Your task to perform on an android device: What time is it in London? Image 0: 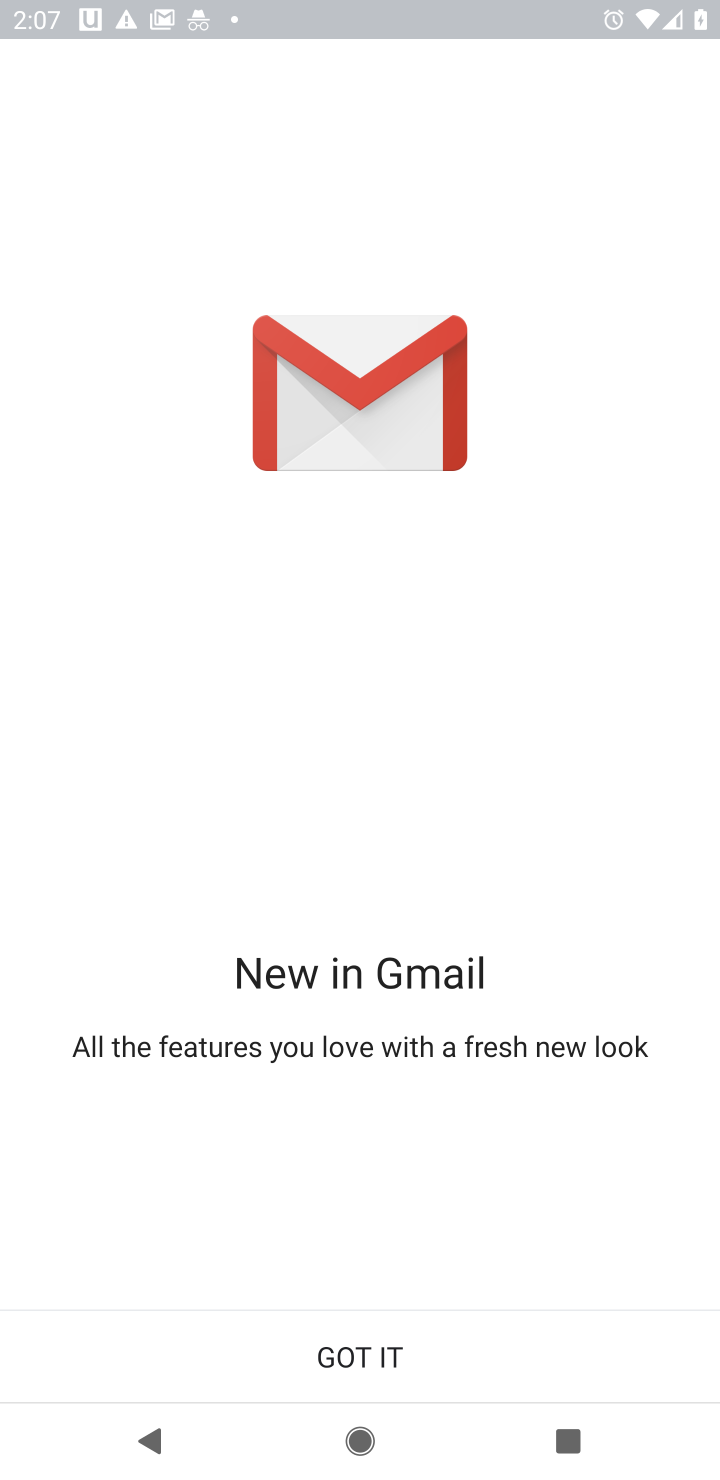
Step 0: press home button
Your task to perform on an android device: What time is it in London? Image 1: 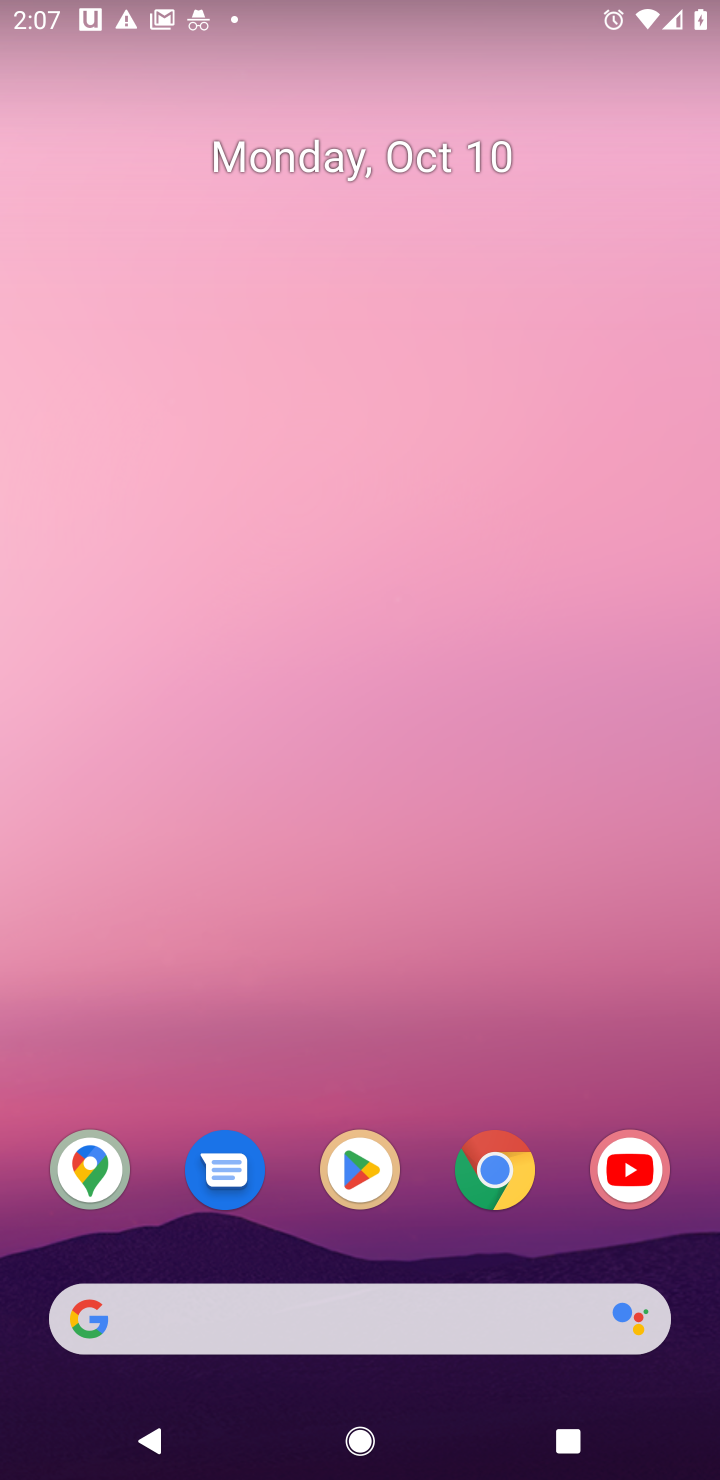
Step 1: click (507, 1167)
Your task to perform on an android device: What time is it in London? Image 2: 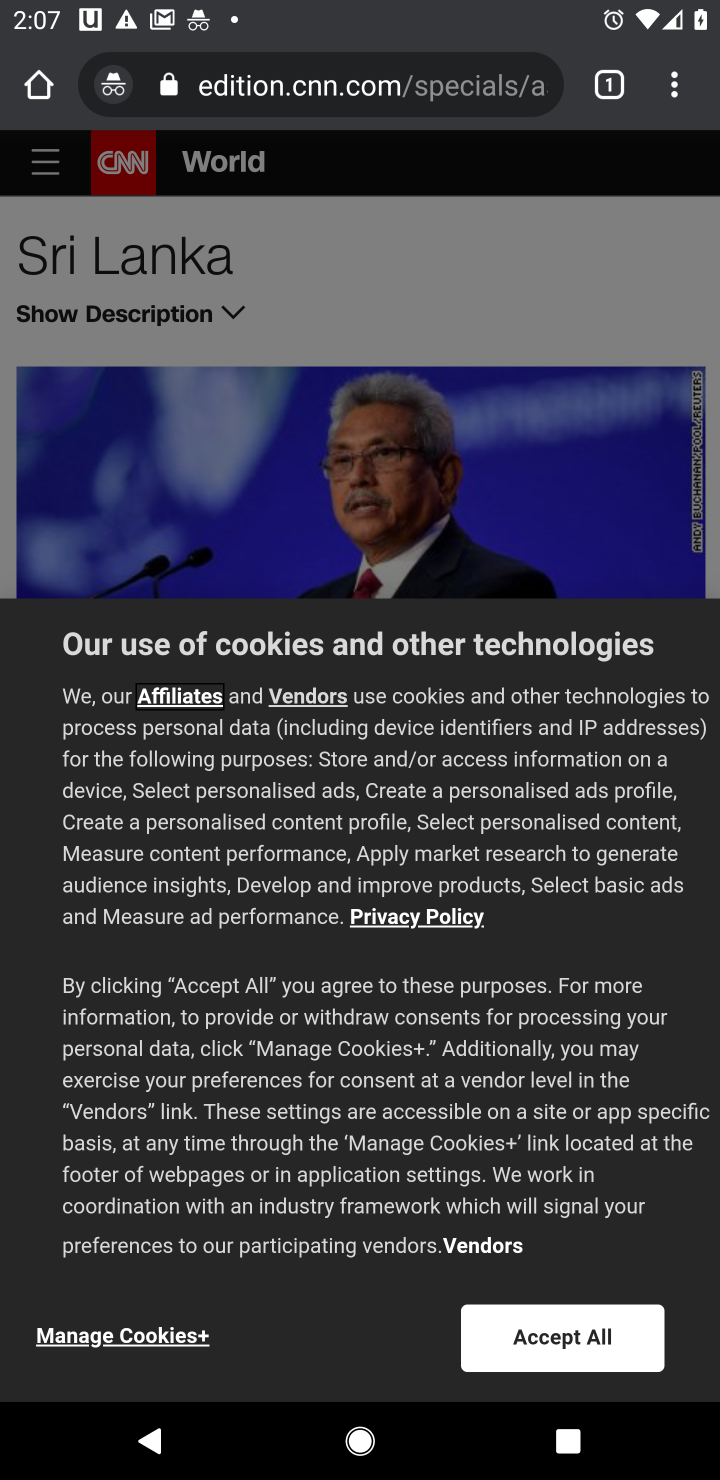
Step 2: click (290, 84)
Your task to perform on an android device: What time is it in London? Image 3: 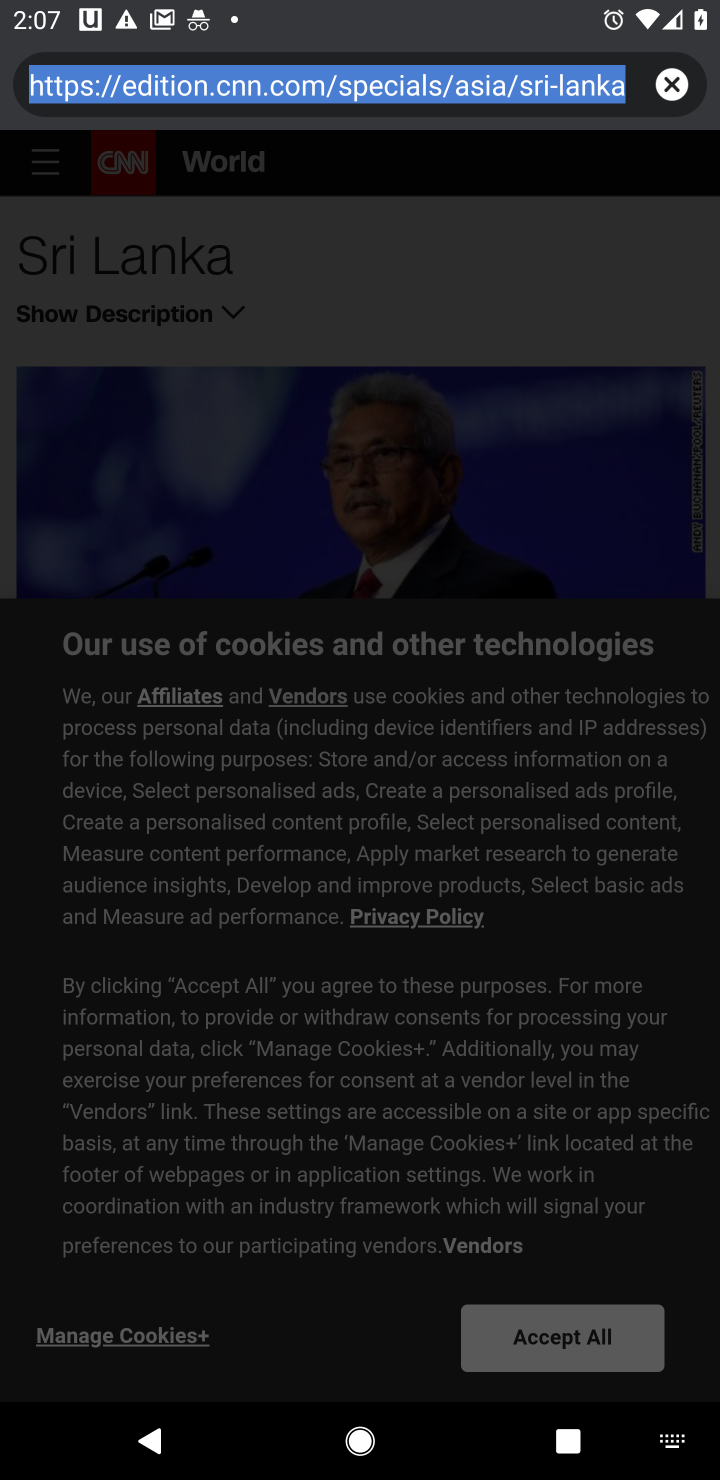
Step 3: click (680, 79)
Your task to perform on an android device: What time is it in London? Image 4: 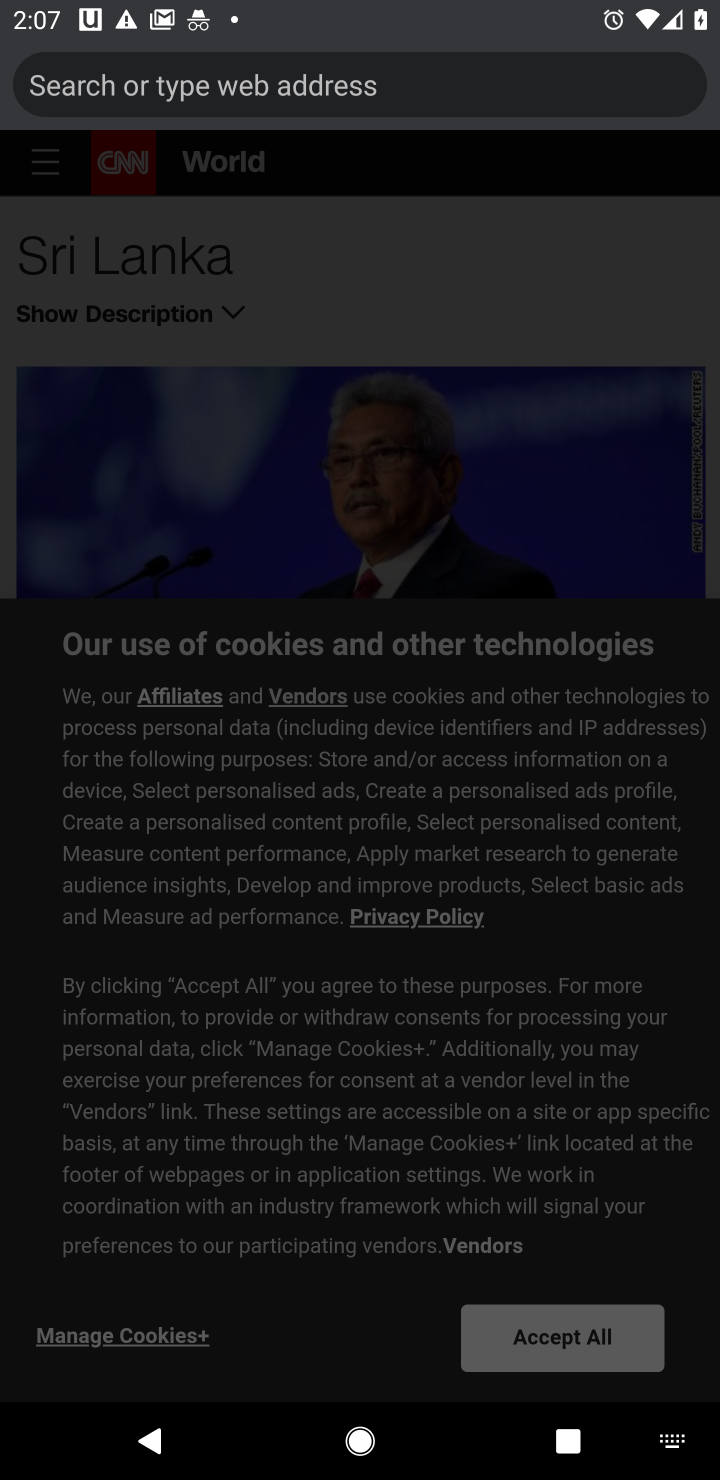
Step 4: type "what time is it in london"
Your task to perform on an android device: What time is it in London? Image 5: 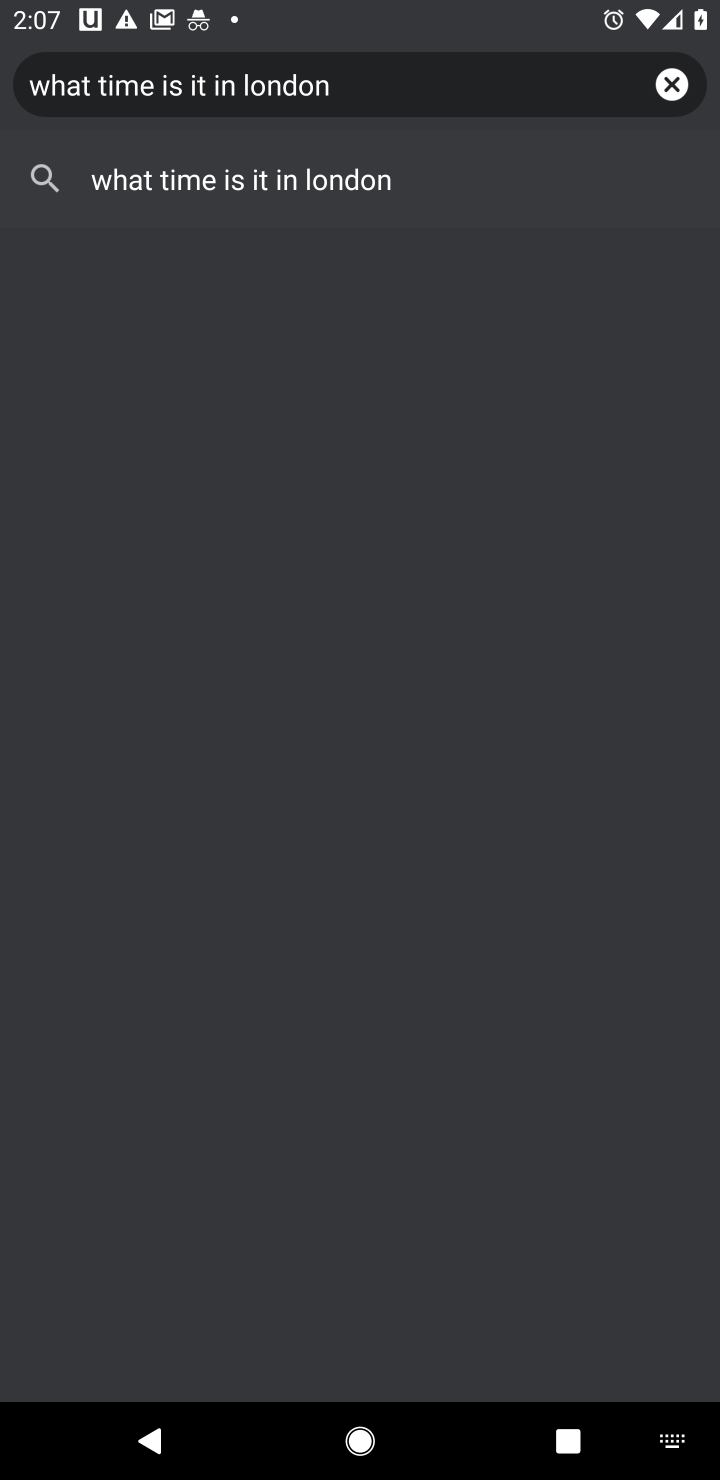
Step 5: click (266, 190)
Your task to perform on an android device: What time is it in London? Image 6: 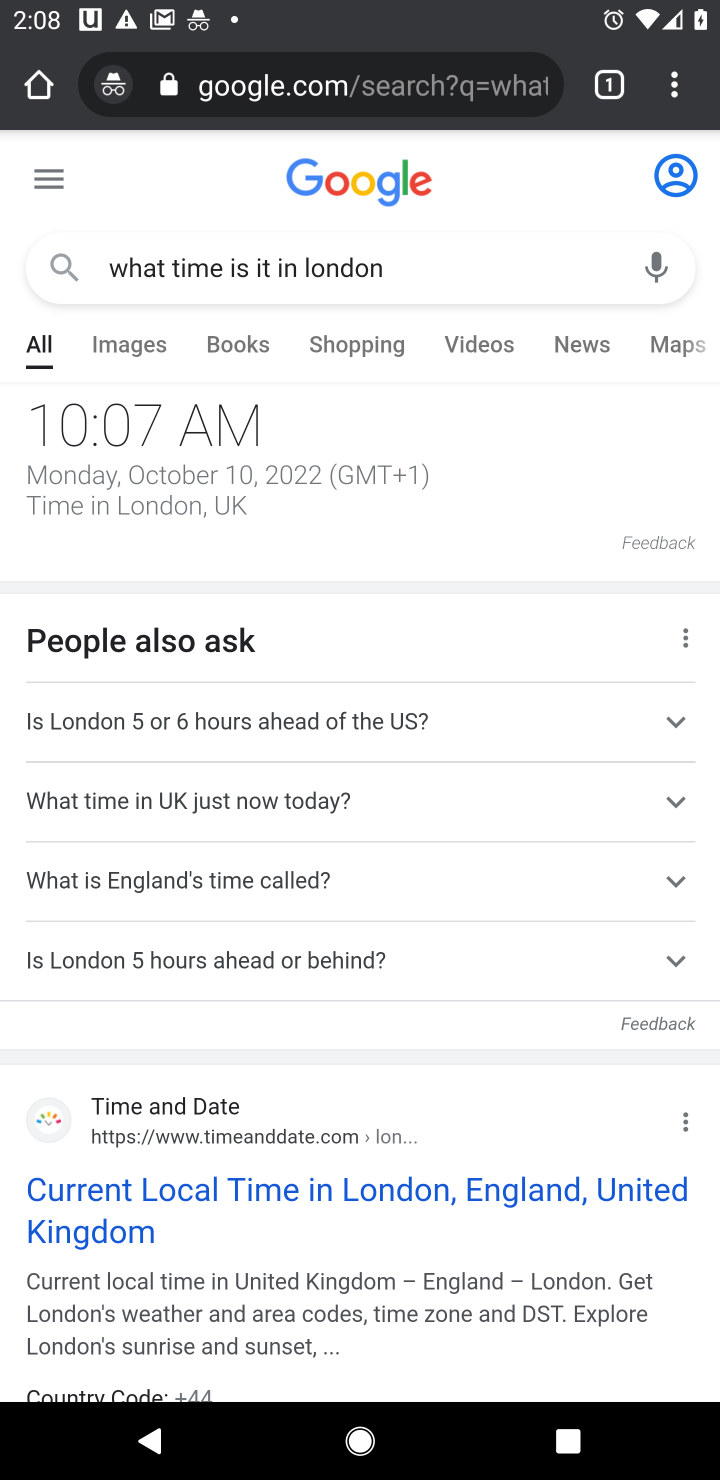
Step 6: task complete